Your task to perform on an android device: open app "File Manager" Image 0: 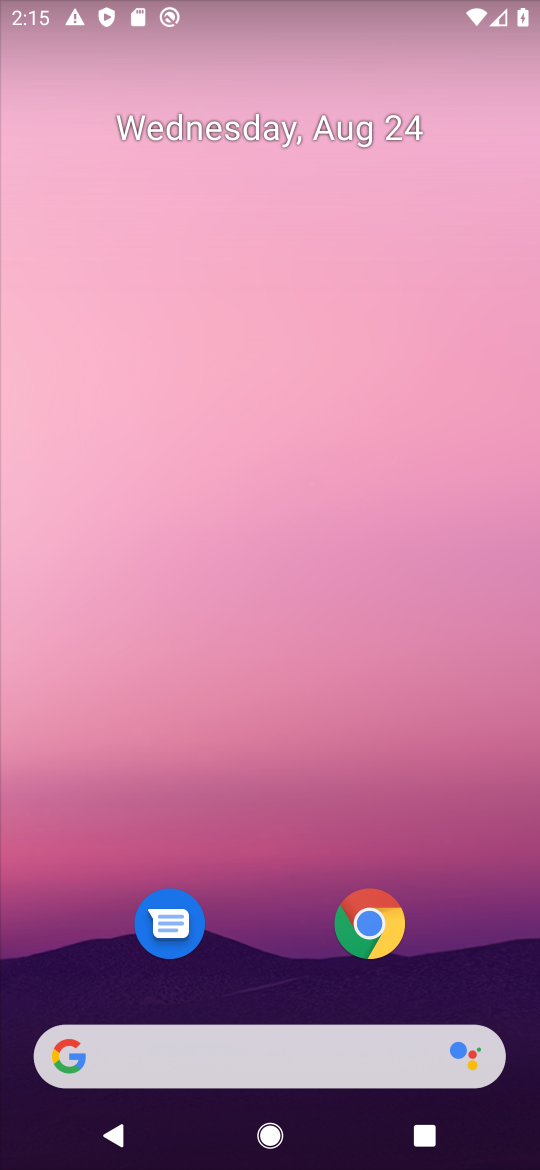
Step 0: drag from (226, 1053) to (224, 159)
Your task to perform on an android device: open app "File Manager" Image 1: 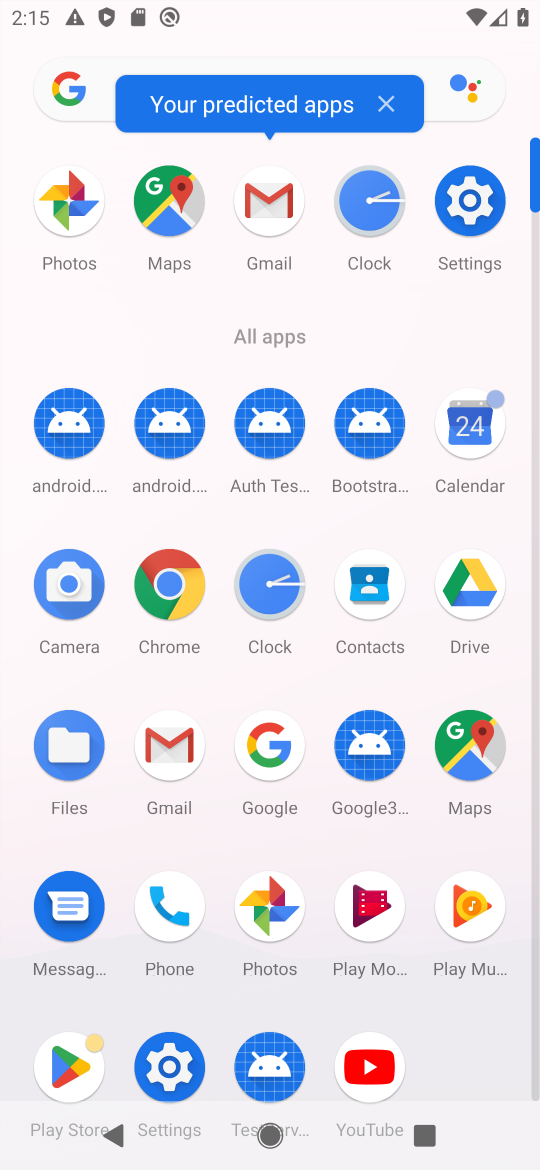
Step 1: click (82, 1070)
Your task to perform on an android device: open app "File Manager" Image 2: 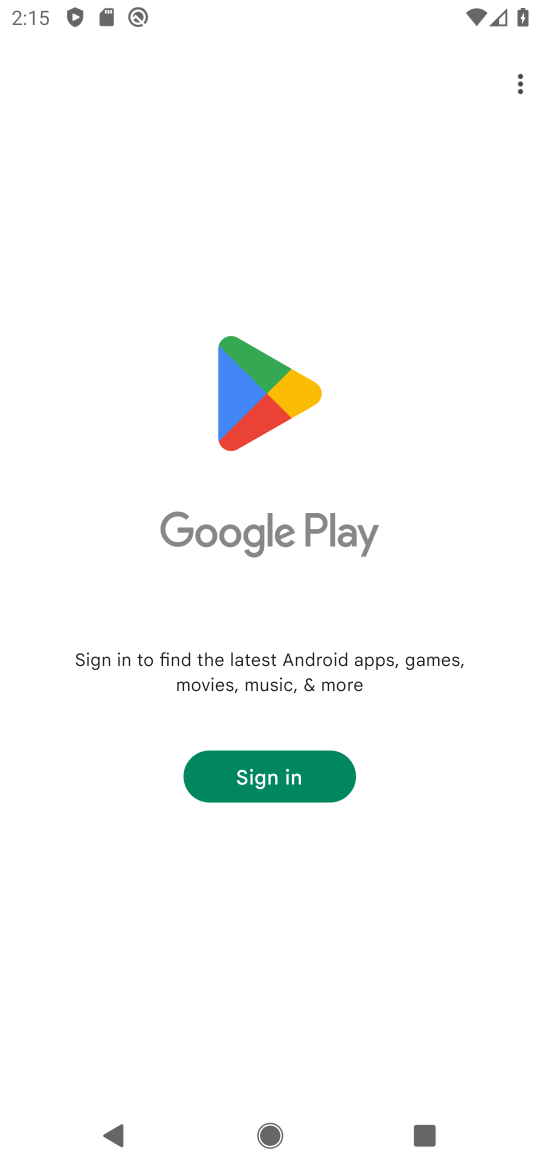
Step 2: task complete